Your task to perform on an android device: Go to Google maps Image 0: 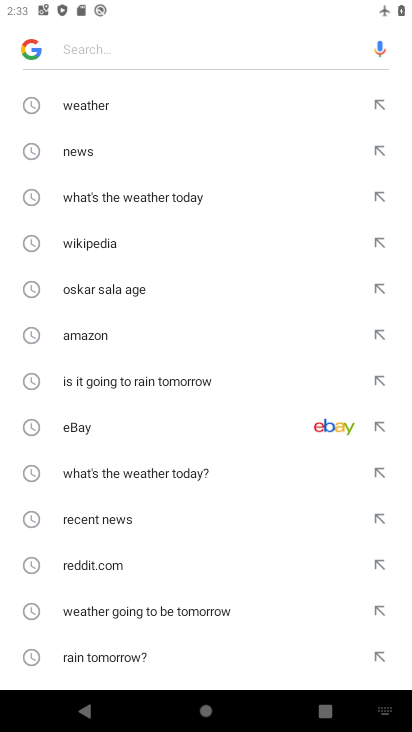
Step 0: press home button
Your task to perform on an android device: Go to Google maps Image 1: 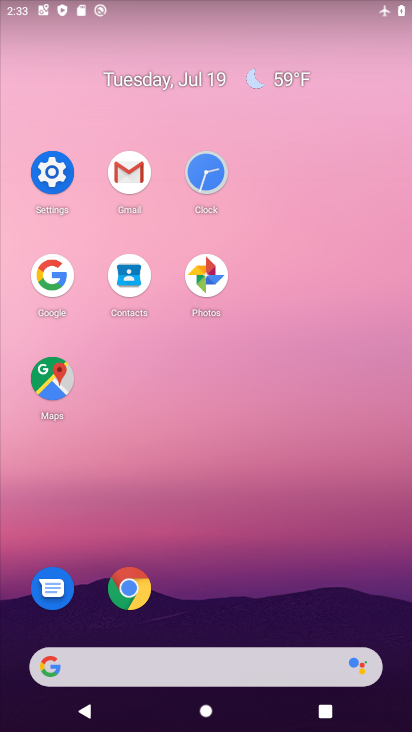
Step 1: click (60, 381)
Your task to perform on an android device: Go to Google maps Image 2: 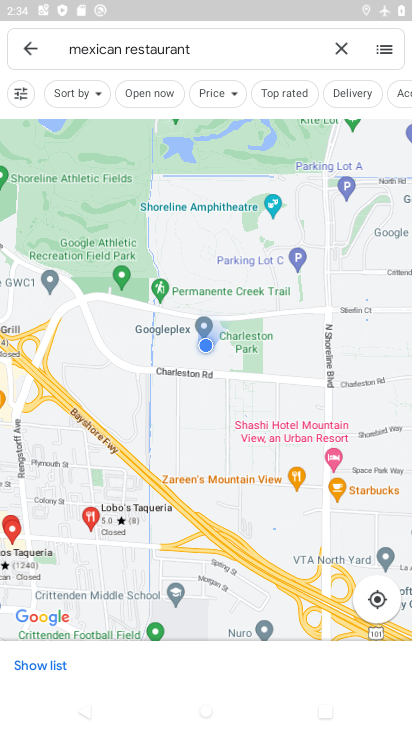
Step 2: task complete